Your task to perform on an android device: check battery use Image 0: 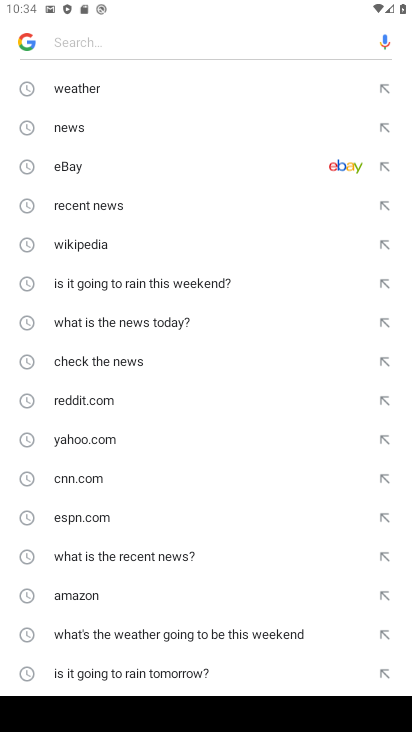
Step 0: press home button
Your task to perform on an android device: check battery use Image 1: 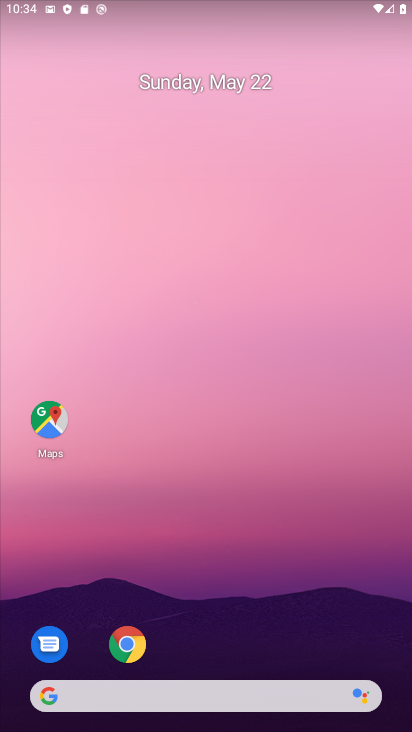
Step 1: drag from (212, 659) to (246, 26)
Your task to perform on an android device: check battery use Image 2: 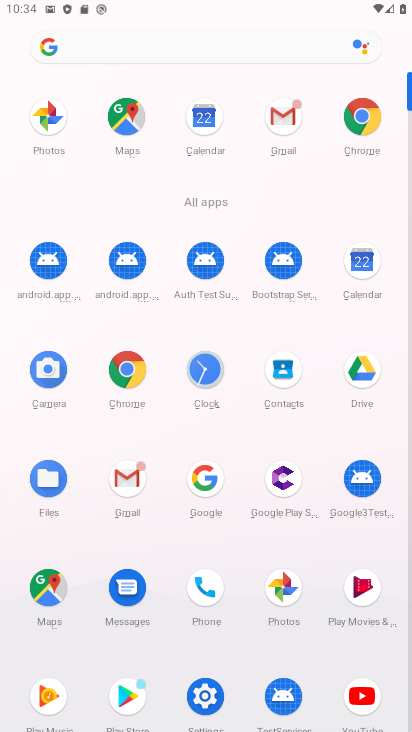
Step 2: click (200, 689)
Your task to perform on an android device: check battery use Image 3: 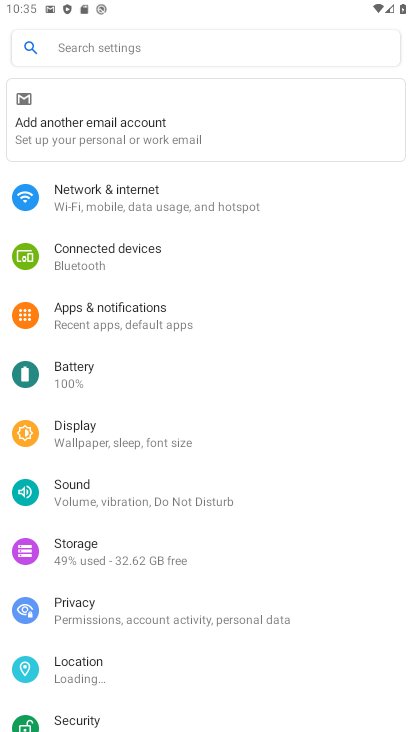
Step 3: click (107, 367)
Your task to perform on an android device: check battery use Image 4: 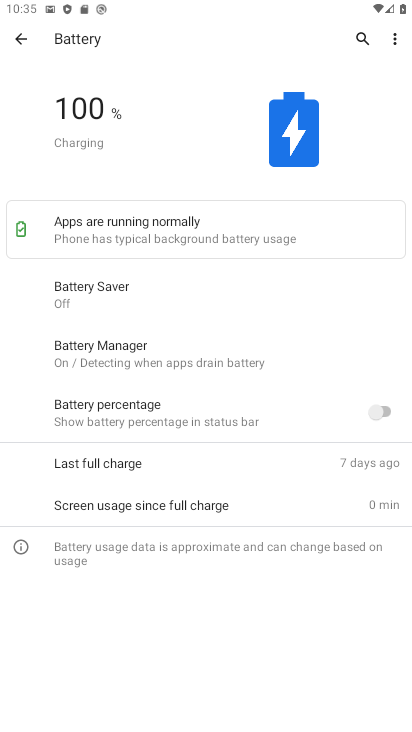
Step 4: click (394, 37)
Your task to perform on an android device: check battery use Image 5: 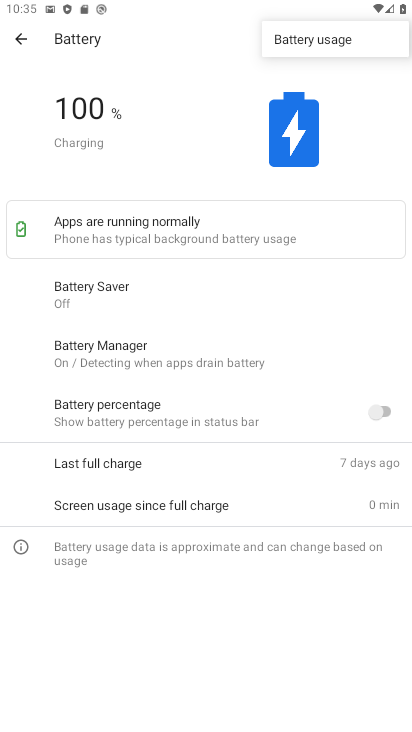
Step 5: click (307, 38)
Your task to perform on an android device: check battery use Image 6: 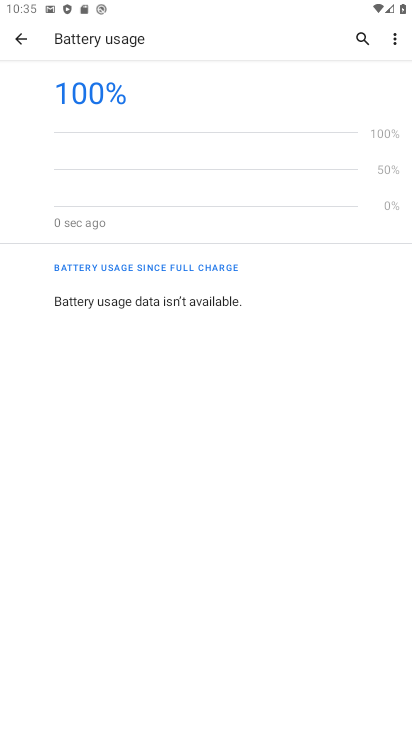
Step 6: task complete